Your task to perform on an android device: Go to Google maps Image 0: 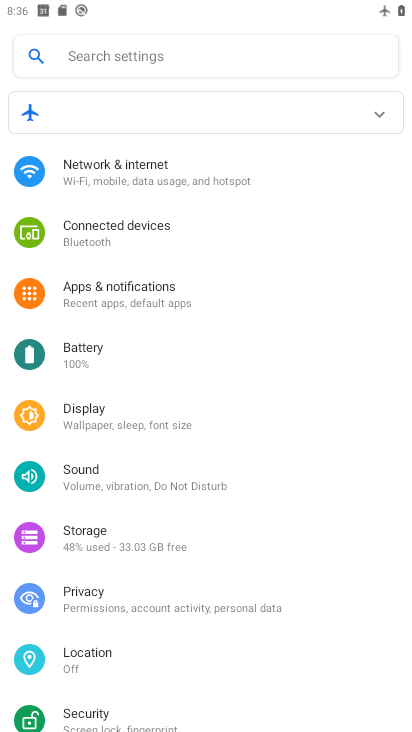
Step 0: press home button
Your task to perform on an android device: Go to Google maps Image 1: 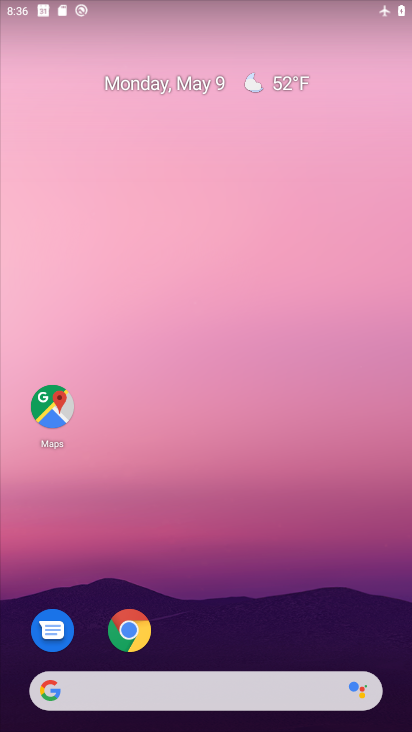
Step 1: click (55, 396)
Your task to perform on an android device: Go to Google maps Image 2: 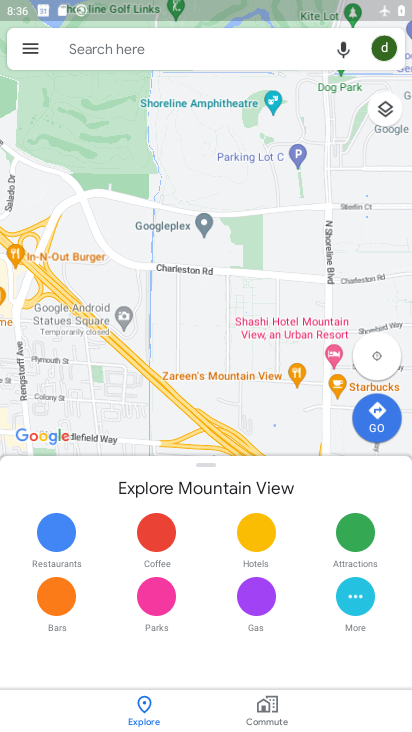
Step 2: task complete